Your task to perform on an android device: Open wifi settings Image 0: 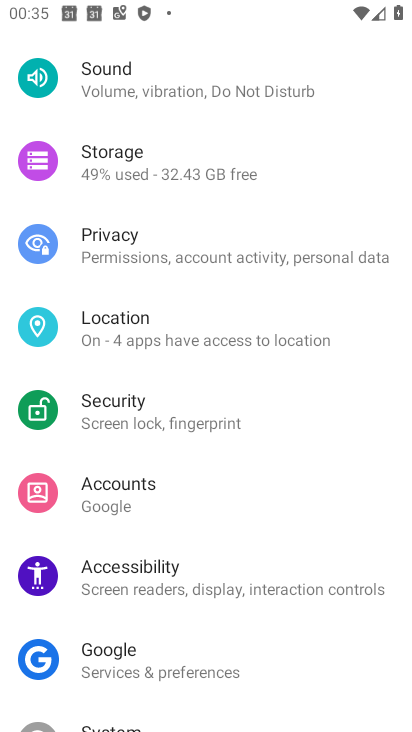
Step 0: drag from (223, 141) to (225, 499)
Your task to perform on an android device: Open wifi settings Image 1: 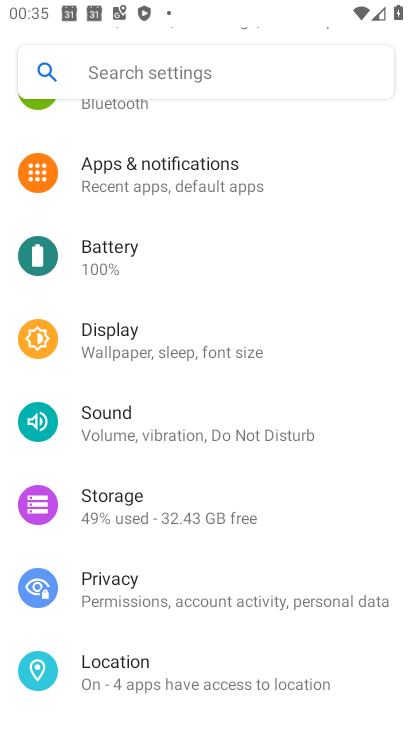
Step 1: drag from (205, 145) to (213, 535)
Your task to perform on an android device: Open wifi settings Image 2: 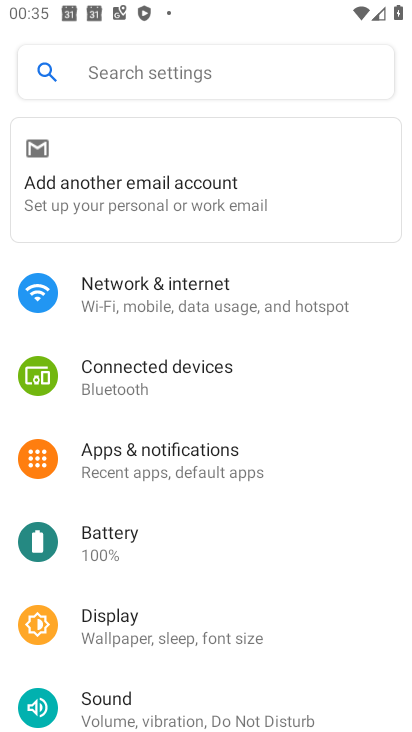
Step 2: click (159, 295)
Your task to perform on an android device: Open wifi settings Image 3: 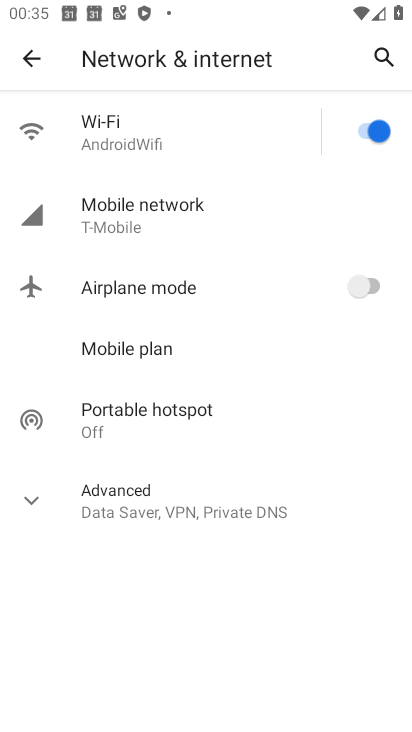
Step 3: click (102, 144)
Your task to perform on an android device: Open wifi settings Image 4: 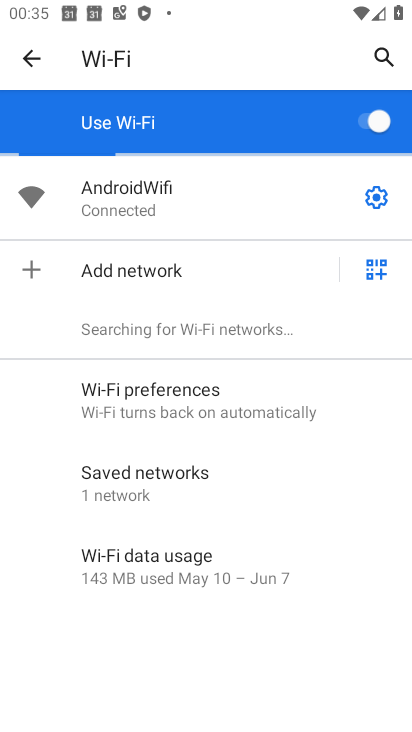
Step 4: task complete